Your task to perform on an android device: Open Android settings Image 0: 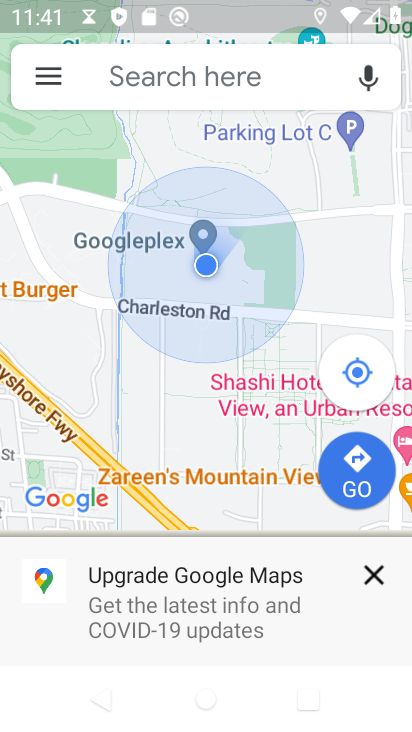
Step 0: press home button
Your task to perform on an android device: Open Android settings Image 1: 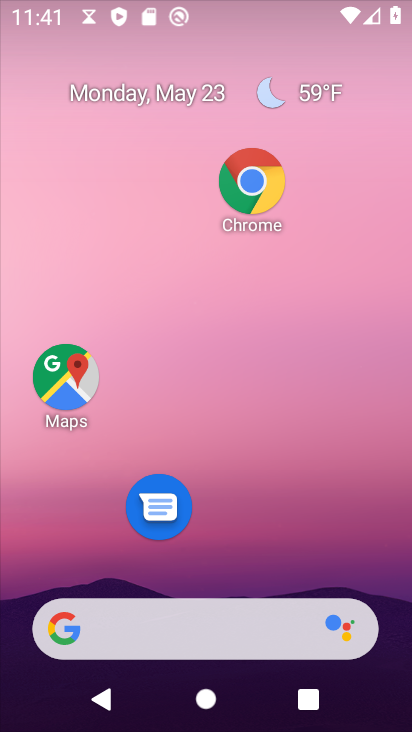
Step 1: drag from (263, 515) to (290, 156)
Your task to perform on an android device: Open Android settings Image 2: 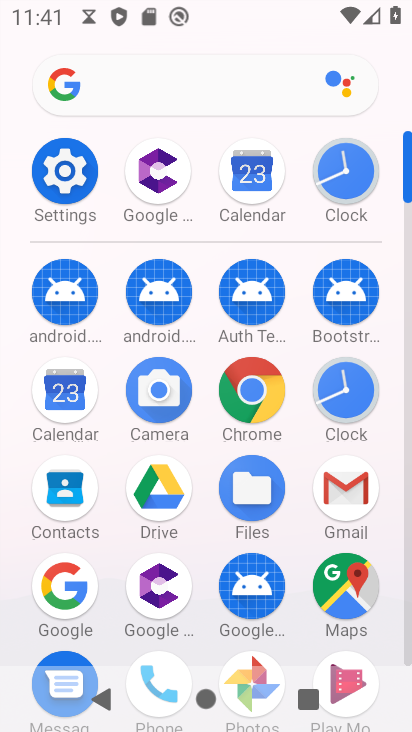
Step 2: click (75, 168)
Your task to perform on an android device: Open Android settings Image 3: 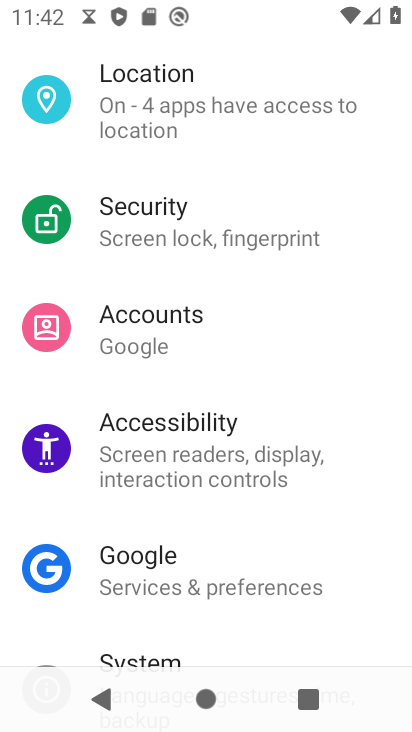
Step 3: task complete